Your task to perform on an android device: Go to Wikipedia Image 0: 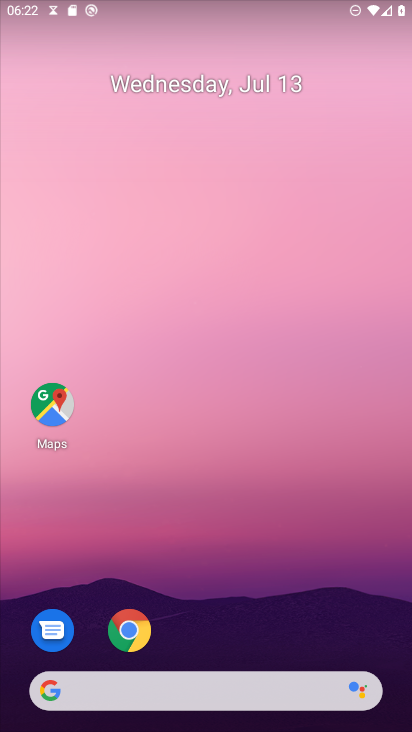
Step 0: drag from (124, 677) to (226, 88)
Your task to perform on an android device: Go to Wikipedia Image 1: 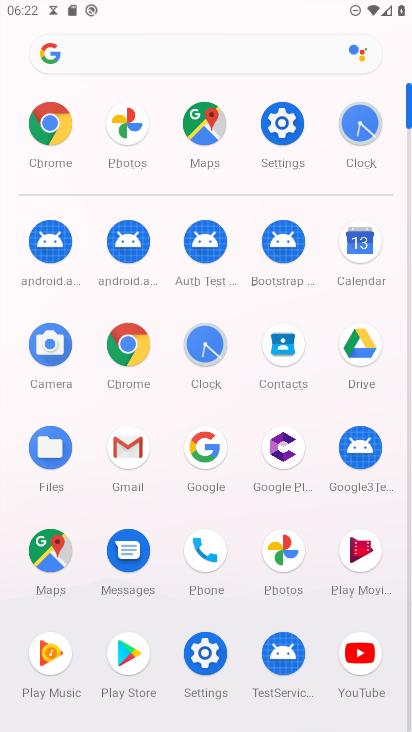
Step 1: click (137, 344)
Your task to perform on an android device: Go to Wikipedia Image 2: 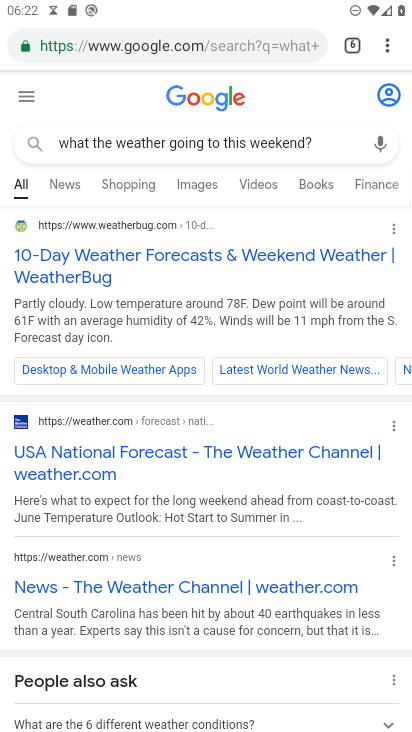
Step 2: drag from (381, 42) to (245, 95)
Your task to perform on an android device: Go to Wikipedia Image 3: 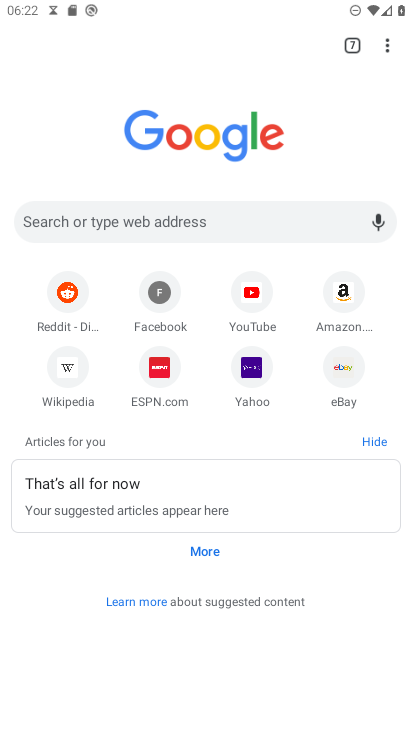
Step 3: click (64, 377)
Your task to perform on an android device: Go to Wikipedia Image 4: 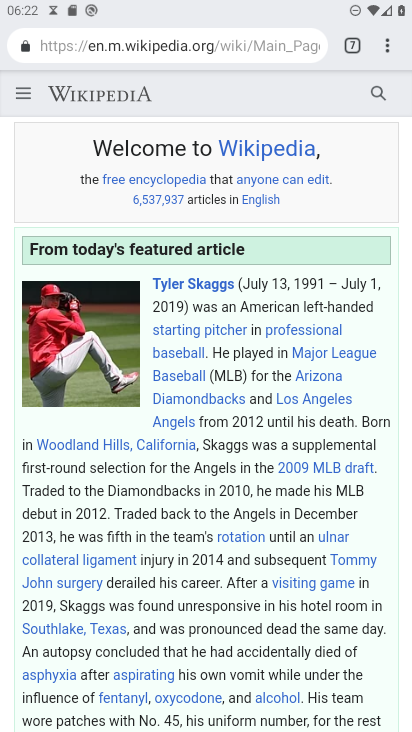
Step 4: task complete